Your task to perform on an android device: What's the weather? Image 0: 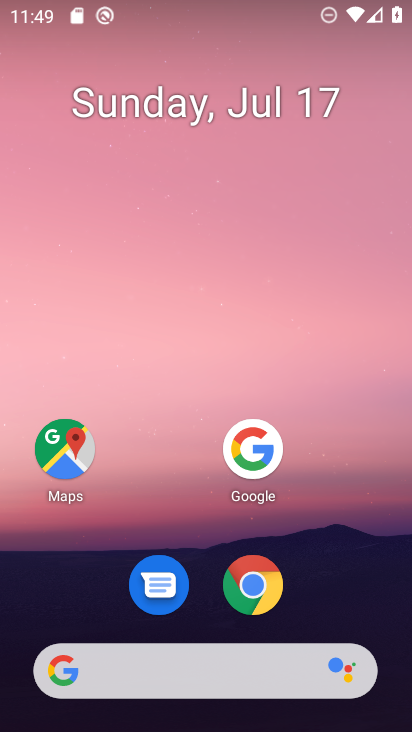
Step 0: press home button
Your task to perform on an android device: What's the weather? Image 1: 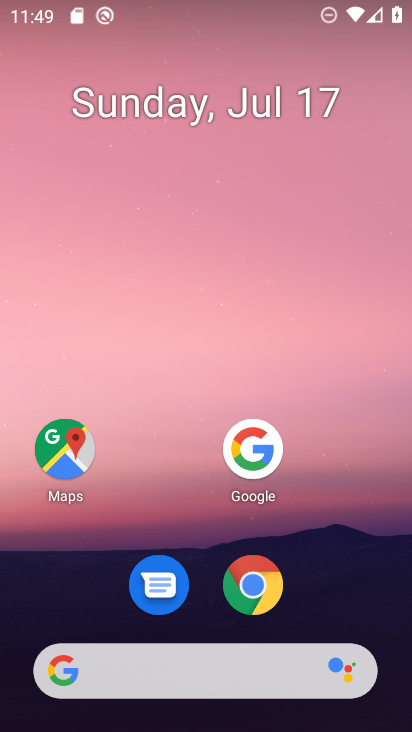
Step 1: click (171, 673)
Your task to perform on an android device: What's the weather? Image 2: 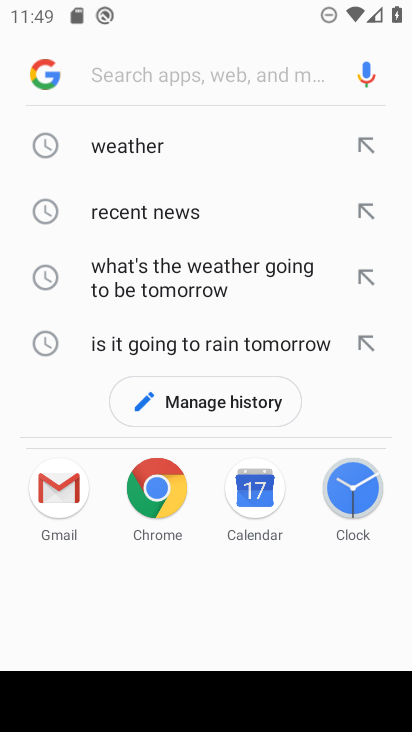
Step 2: click (115, 149)
Your task to perform on an android device: What's the weather? Image 3: 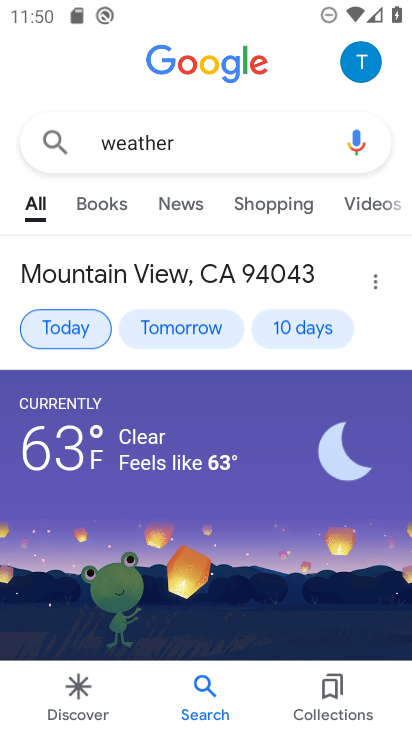
Step 3: task complete